Your task to perform on an android device: set an alarm Image 0: 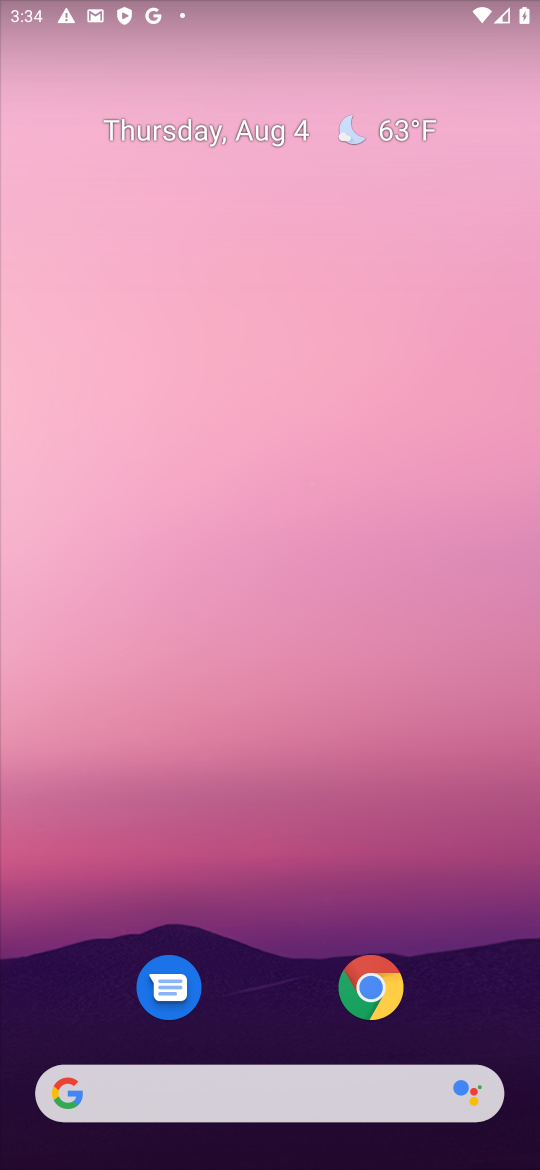
Step 0: drag from (259, 985) to (315, 32)
Your task to perform on an android device: set an alarm Image 1: 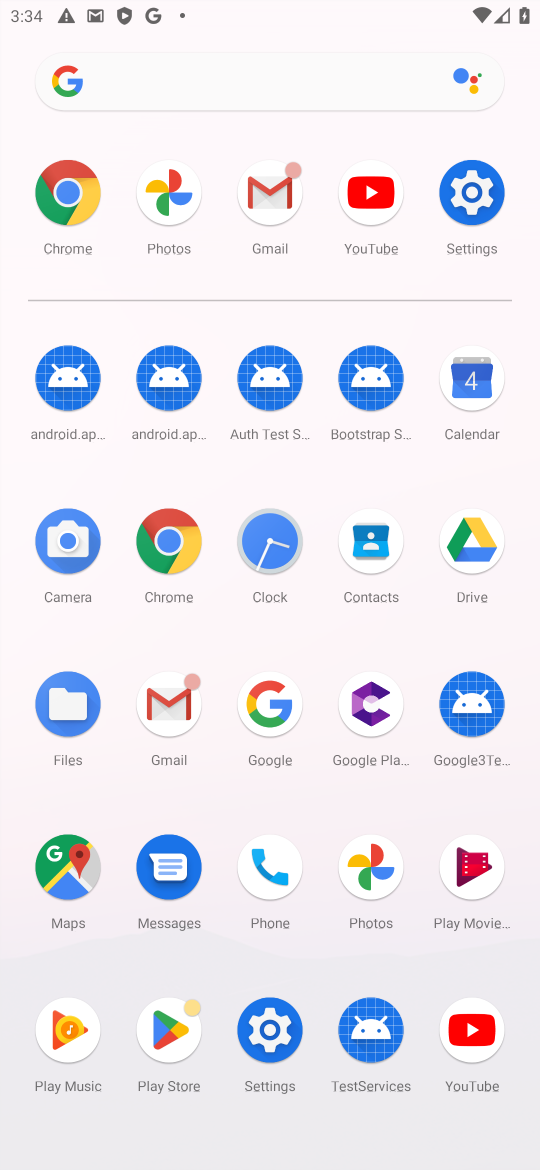
Step 1: click (287, 542)
Your task to perform on an android device: set an alarm Image 2: 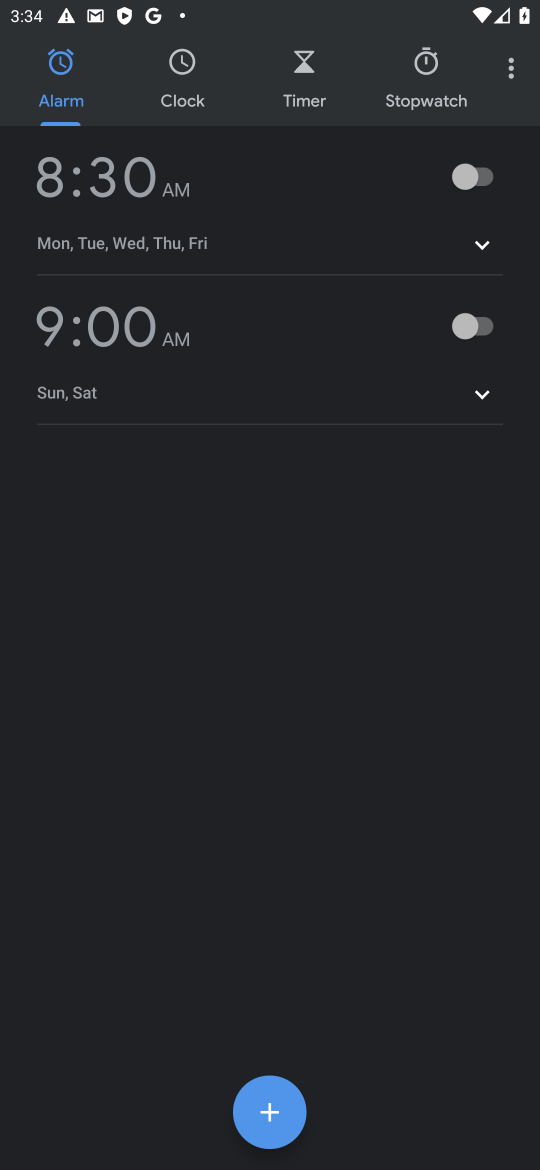
Step 2: click (485, 171)
Your task to perform on an android device: set an alarm Image 3: 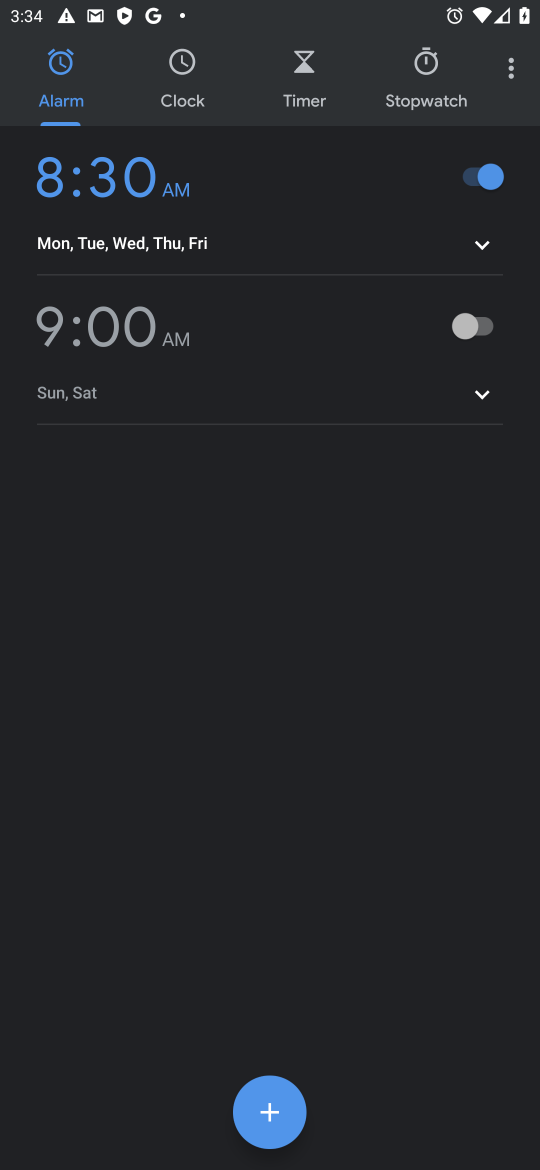
Step 3: task complete